Your task to perform on an android device: clear history in the chrome app Image 0: 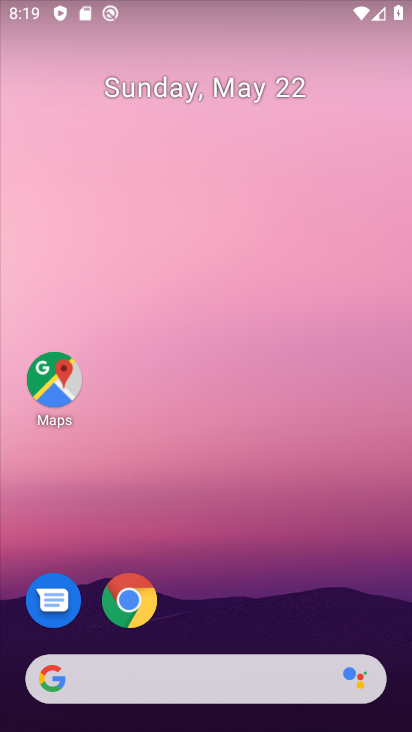
Step 0: click (125, 598)
Your task to perform on an android device: clear history in the chrome app Image 1: 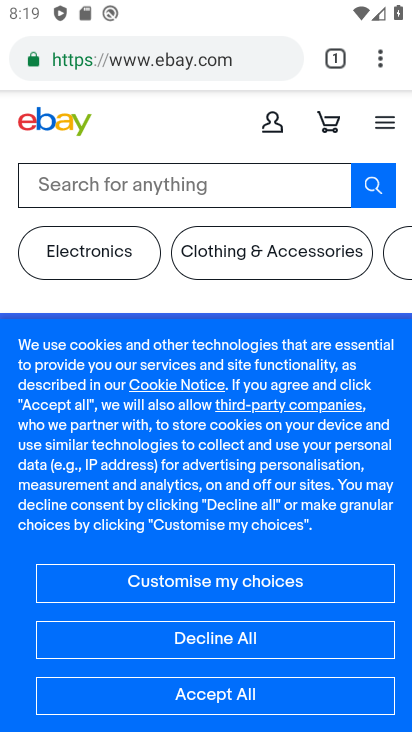
Step 1: click (199, 59)
Your task to perform on an android device: clear history in the chrome app Image 2: 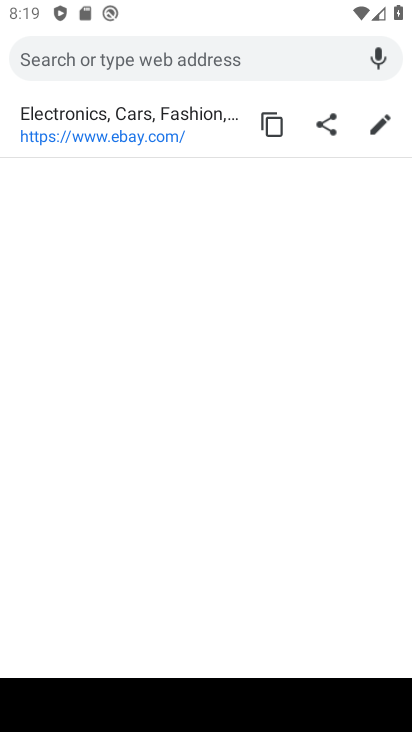
Step 2: press back button
Your task to perform on an android device: clear history in the chrome app Image 3: 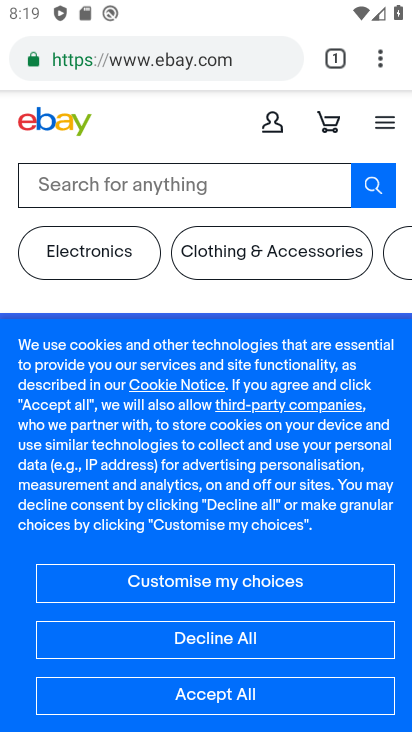
Step 3: click (386, 55)
Your task to perform on an android device: clear history in the chrome app Image 4: 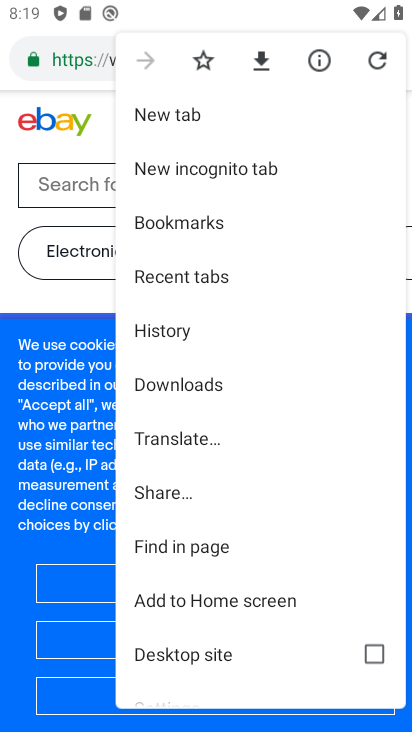
Step 4: click (184, 339)
Your task to perform on an android device: clear history in the chrome app Image 5: 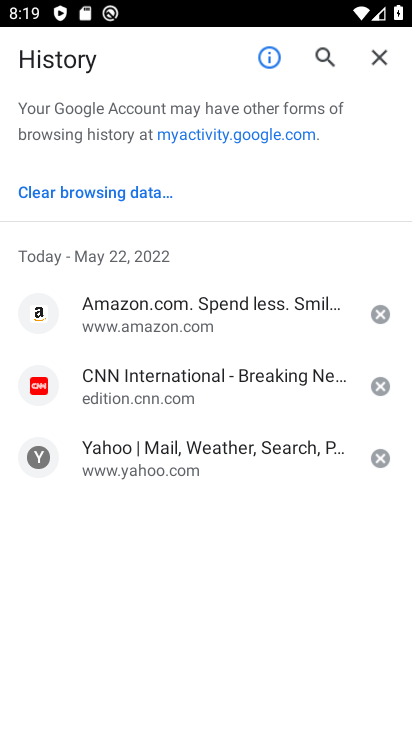
Step 5: click (102, 190)
Your task to perform on an android device: clear history in the chrome app Image 6: 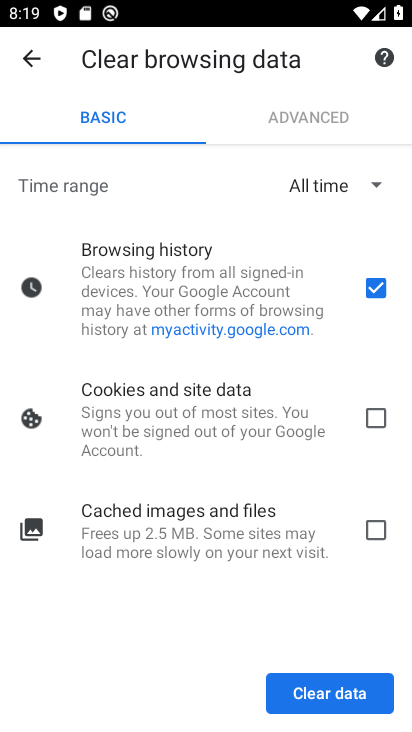
Step 6: click (376, 410)
Your task to perform on an android device: clear history in the chrome app Image 7: 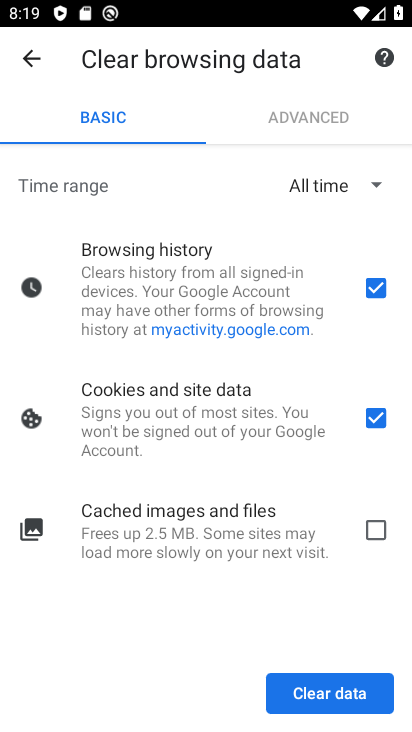
Step 7: click (383, 537)
Your task to perform on an android device: clear history in the chrome app Image 8: 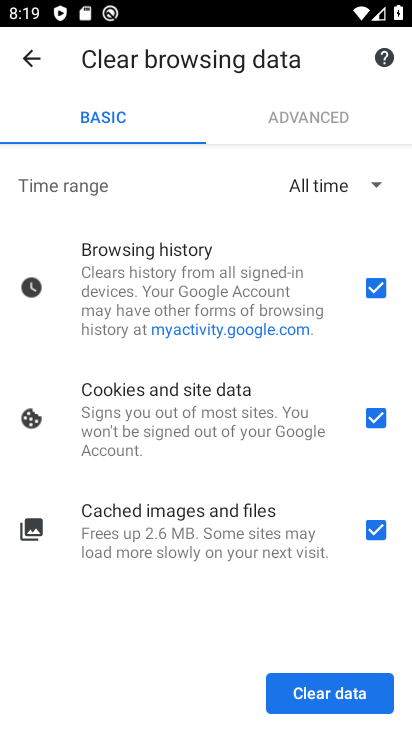
Step 8: click (317, 693)
Your task to perform on an android device: clear history in the chrome app Image 9: 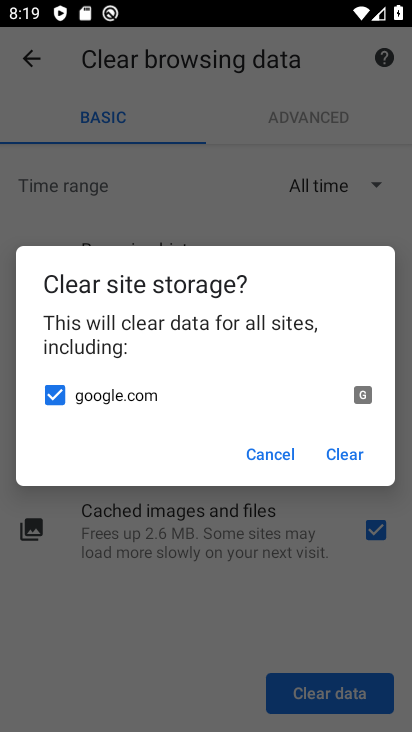
Step 9: click (336, 455)
Your task to perform on an android device: clear history in the chrome app Image 10: 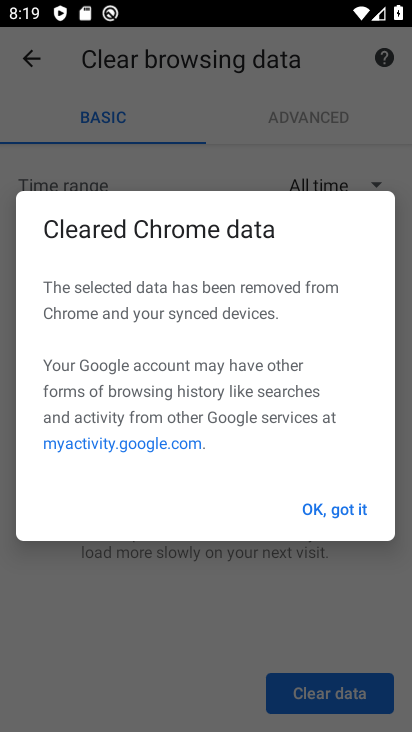
Step 10: click (343, 518)
Your task to perform on an android device: clear history in the chrome app Image 11: 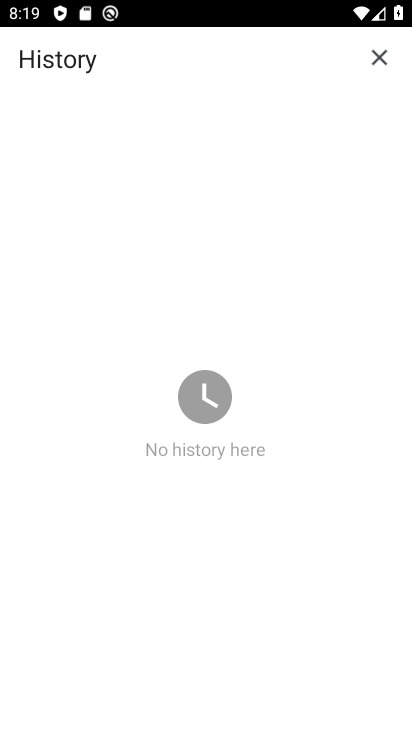
Step 11: task complete